Your task to perform on an android device: toggle javascript in the chrome app Image 0: 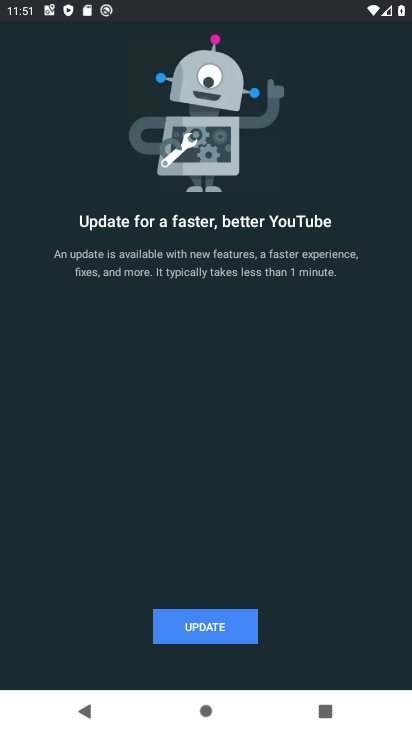
Step 0: press home button
Your task to perform on an android device: toggle javascript in the chrome app Image 1: 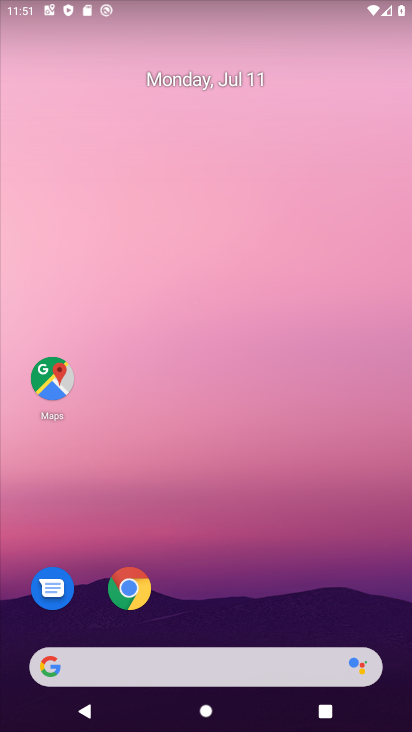
Step 1: click (127, 580)
Your task to perform on an android device: toggle javascript in the chrome app Image 2: 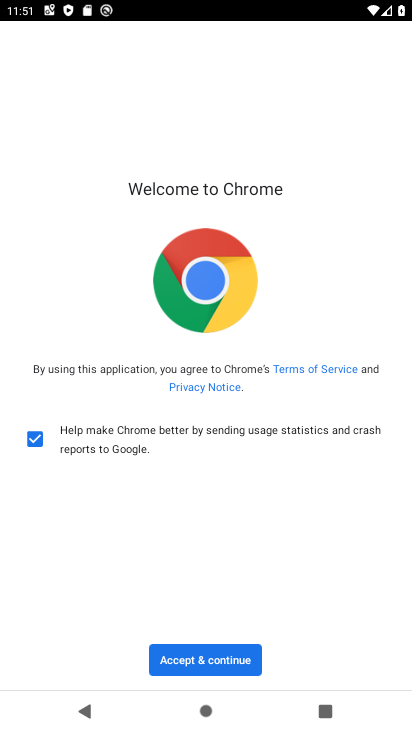
Step 2: click (222, 658)
Your task to perform on an android device: toggle javascript in the chrome app Image 3: 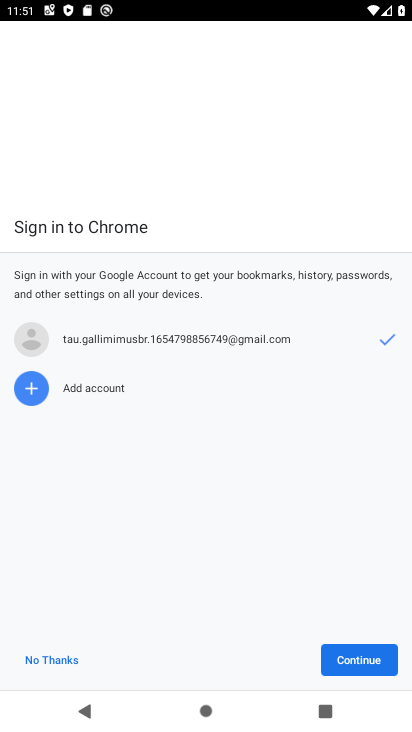
Step 3: click (351, 658)
Your task to perform on an android device: toggle javascript in the chrome app Image 4: 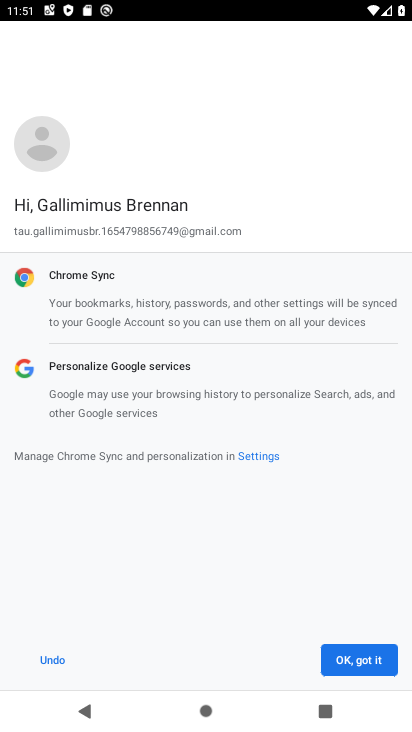
Step 4: click (357, 662)
Your task to perform on an android device: toggle javascript in the chrome app Image 5: 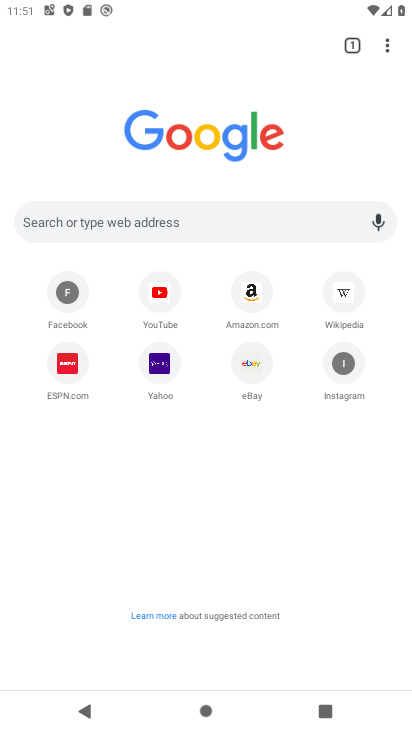
Step 5: drag from (387, 37) to (244, 385)
Your task to perform on an android device: toggle javascript in the chrome app Image 6: 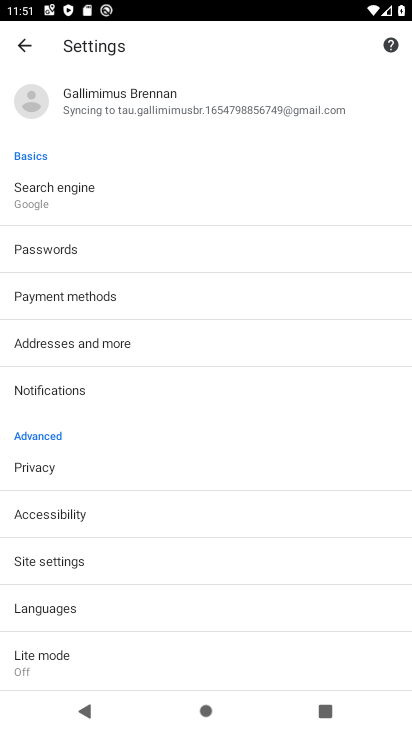
Step 6: click (48, 561)
Your task to perform on an android device: toggle javascript in the chrome app Image 7: 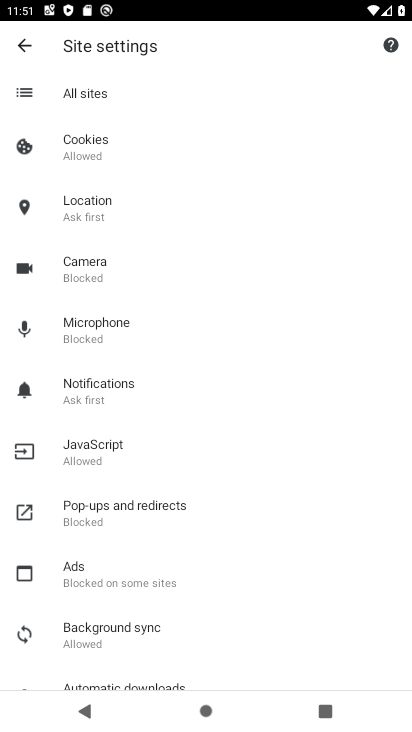
Step 7: click (90, 447)
Your task to perform on an android device: toggle javascript in the chrome app Image 8: 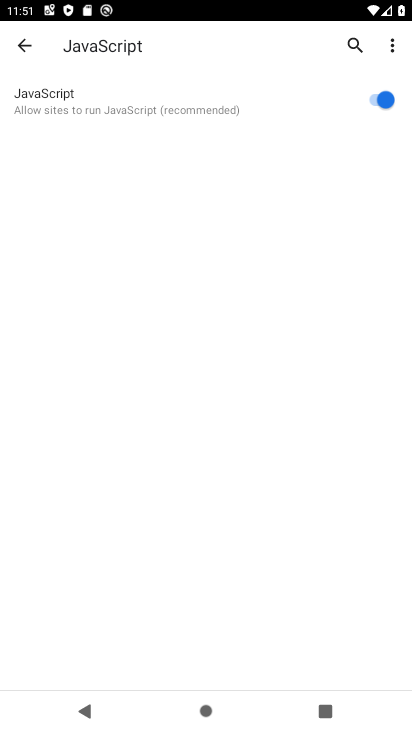
Step 8: click (383, 101)
Your task to perform on an android device: toggle javascript in the chrome app Image 9: 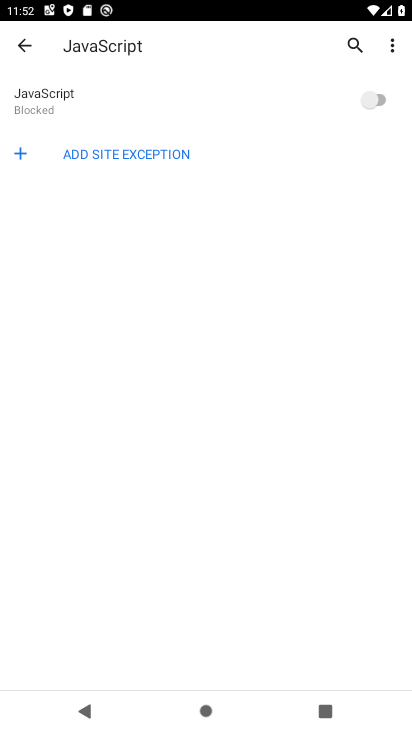
Step 9: task complete